Your task to perform on an android device: Open privacy settings Image 0: 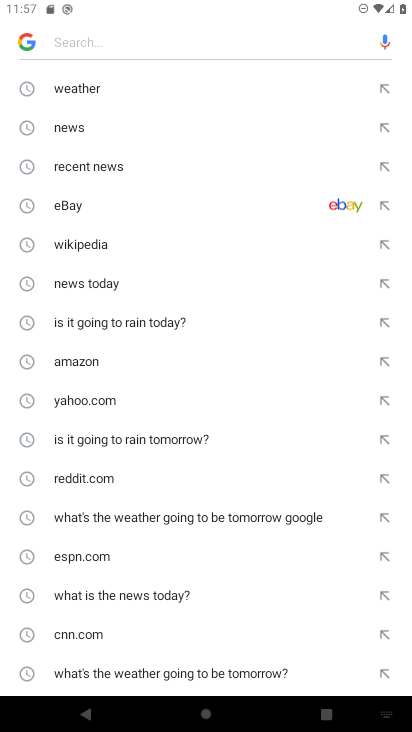
Step 0: press home button
Your task to perform on an android device: Open privacy settings Image 1: 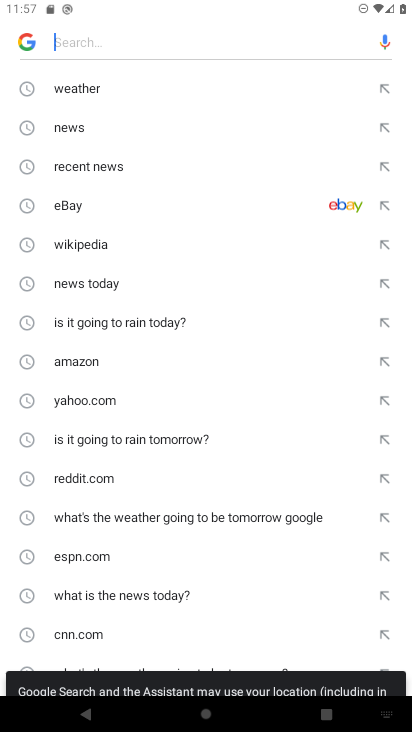
Step 1: press home button
Your task to perform on an android device: Open privacy settings Image 2: 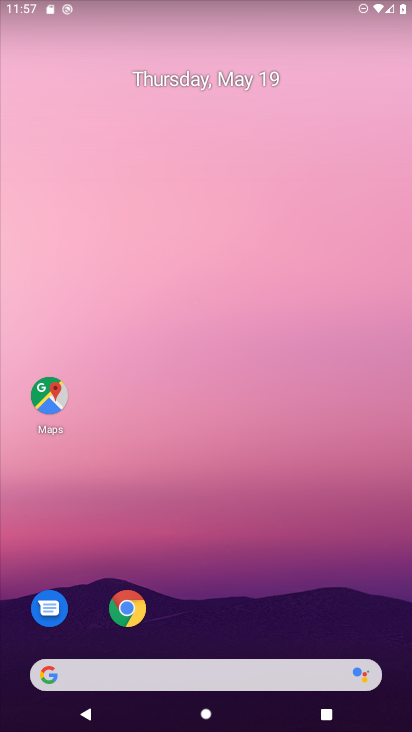
Step 2: drag from (349, 596) to (340, 6)
Your task to perform on an android device: Open privacy settings Image 3: 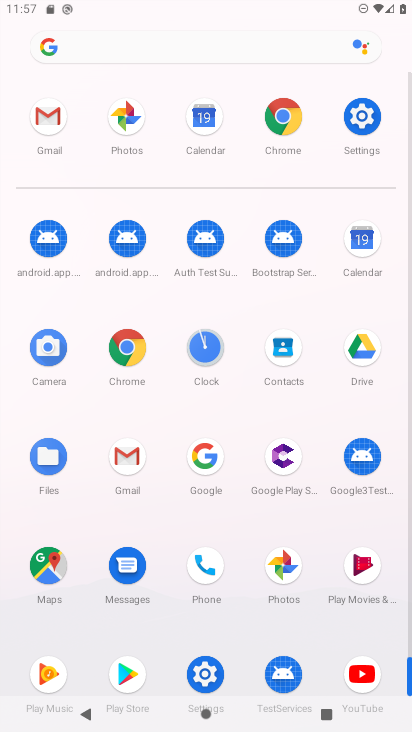
Step 3: click (360, 126)
Your task to perform on an android device: Open privacy settings Image 4: 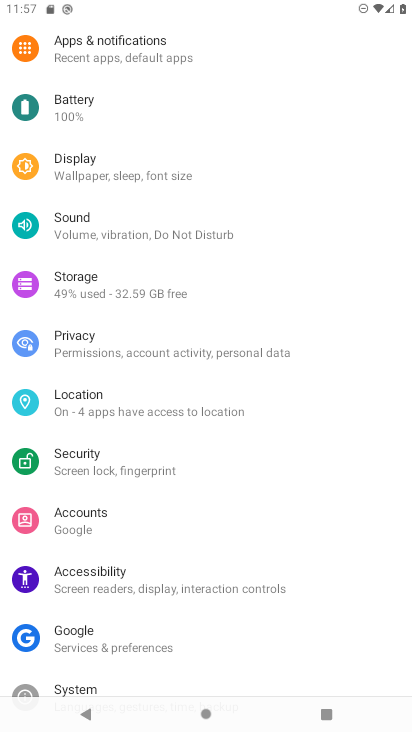
Step 4: click (86, 342)
Your task to perform on an android device: Open privacy settings Image 5: 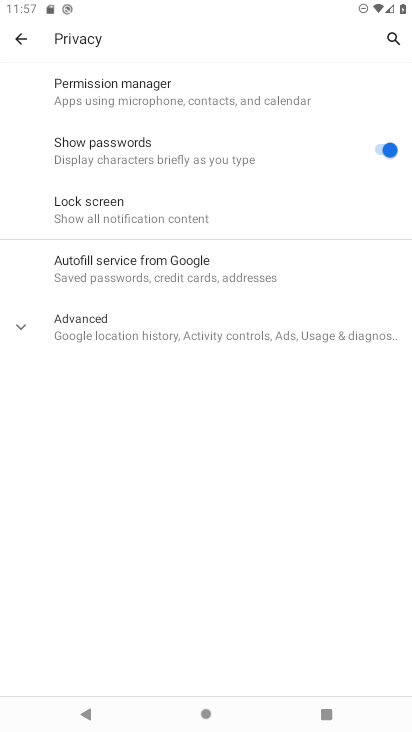
Step 5: task complete